Your task to perform on an android device: Open network settings Image 0: 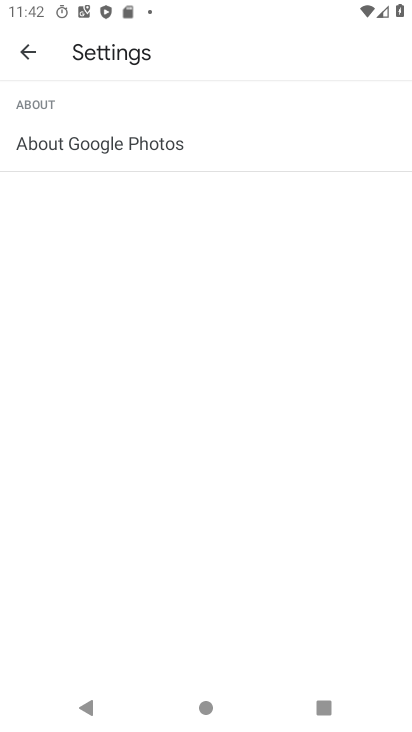
Step 0: press home button
Your task to perform on an android device: Open network settings Image 1: 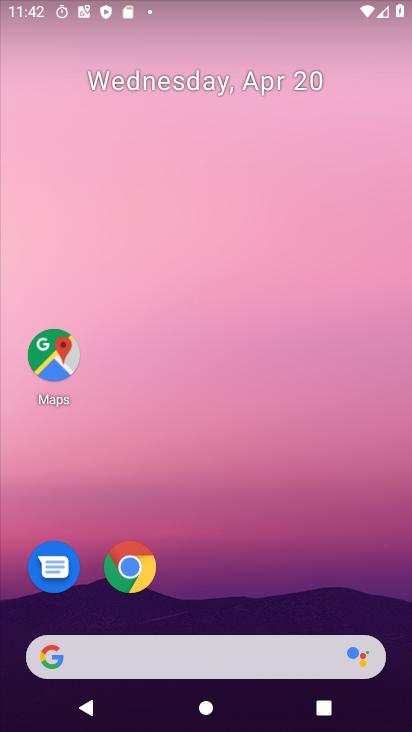
Step 1: drag from (203, 578) to (200, 135)
Your task to perform on an android device: Open network settings Image 2: 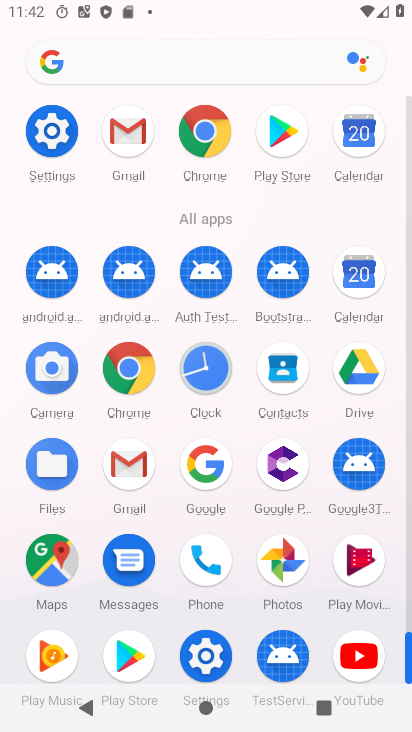
Step 2: click (49, 142)
Your task to perform on an android device: Open network settings Image 3: 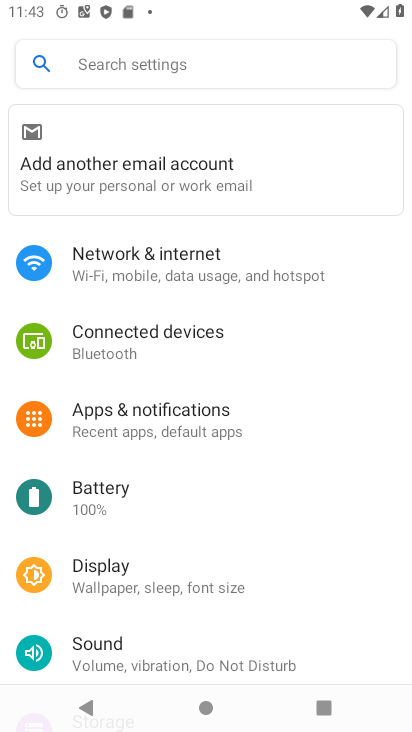
Step 3: click (152, 266)
Your task to perform on an android device: Open network settings Image 4: 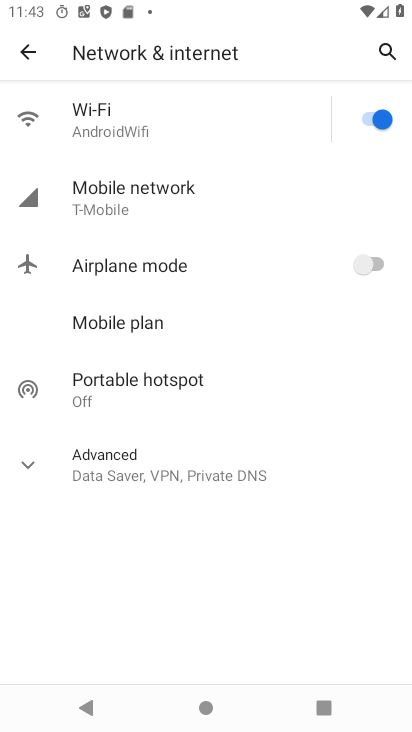
Step 4: click (147, 192)
Your task to perform on an android device: Open network settings Image 5: 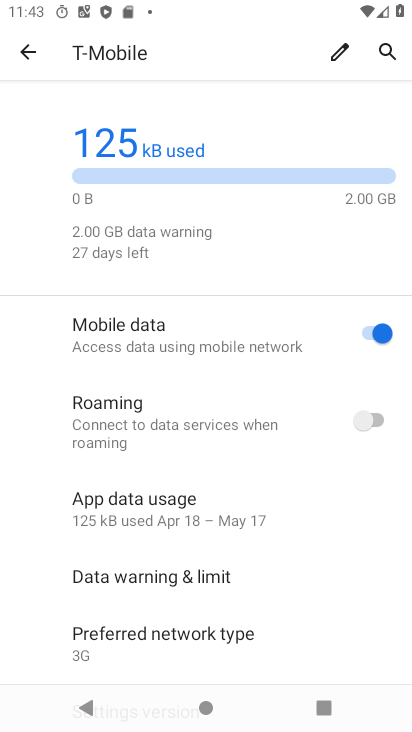
Step 5: task complete